Your task to perform on an android device: Go to wifi settings Image 0: 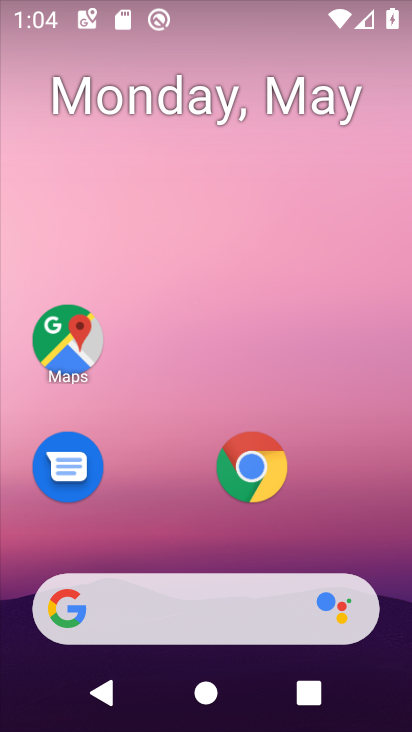
Step 0: drag from (208, 543) to (205, 120)
Your task to perform on an android device: Go to wifi settings Image 1: 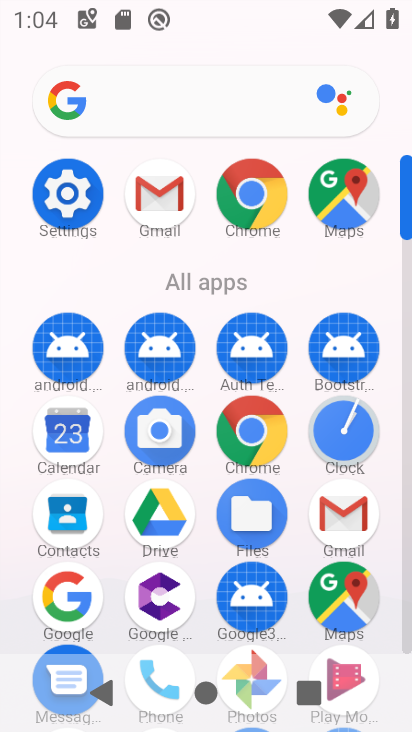
Step 1: click (66, 184)
Your task to perform on an android device: Go to wifi settings Image 2: 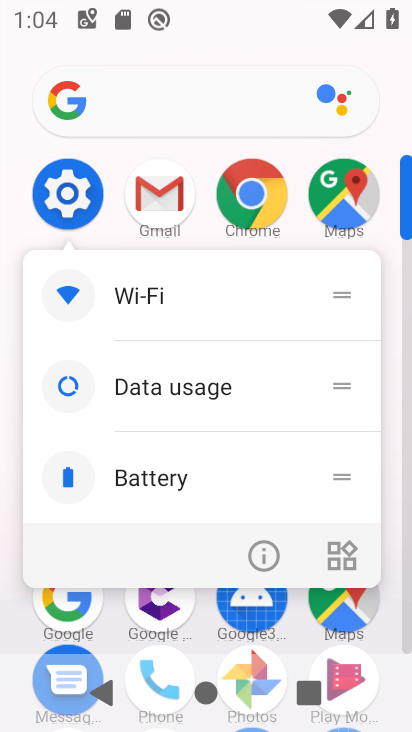
Step 2: click (262, 557)
Your task to perform on an android device: Go to wifi settings Image 3: 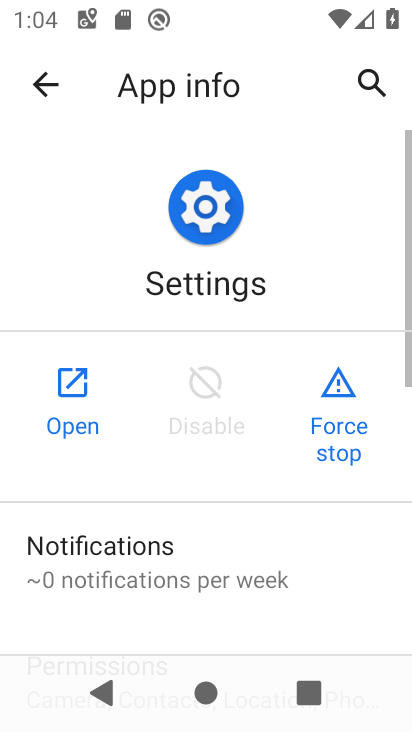
Step 3: click (70, 376)
Your task to perform on an android device: Go to wifi settings Image 4: 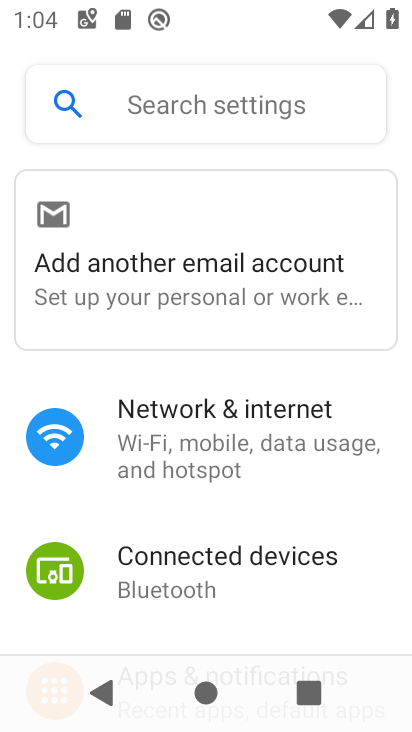
Step 4: click (178, 445)
Your task to perform on an android device: Go to wifi settings Image 5: 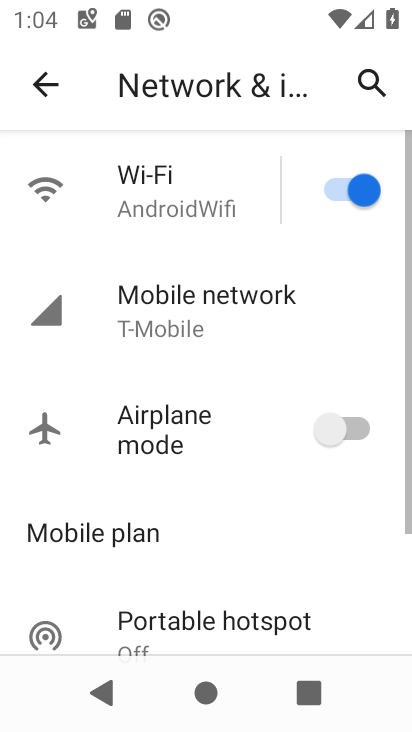
Step 5: click (213, 205)
Your task to perform on an android device: Go to wifi settings Image 6: 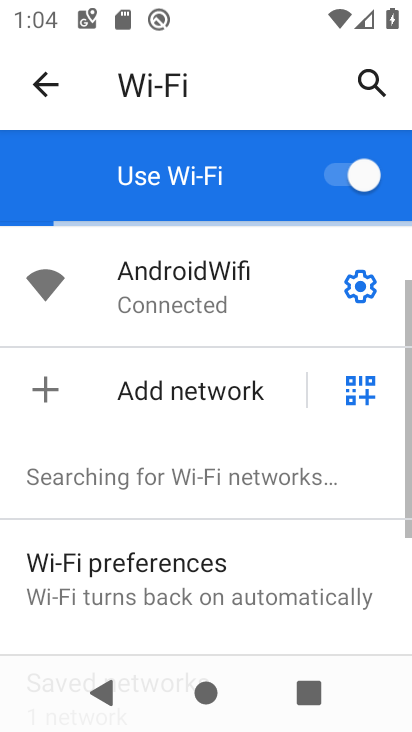
Step 6: task complete